Your task to perform on an android device: Add sony triple a to the cart on newegg.com, then select checkout. Image 0: 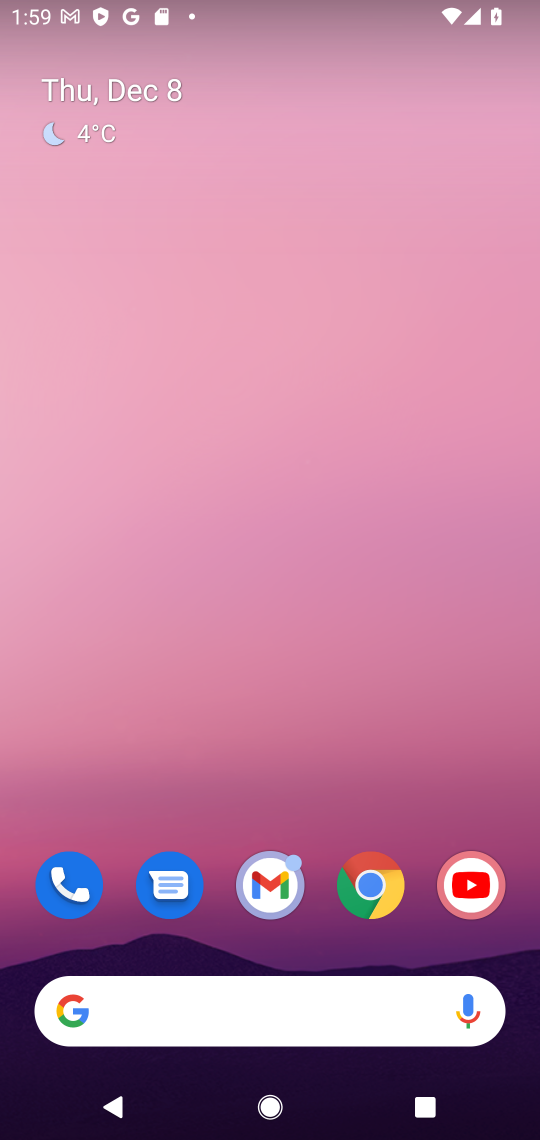
Step 0: task complete